Your task to perform on an android device: Show me popular games on the Play Store Image 0: 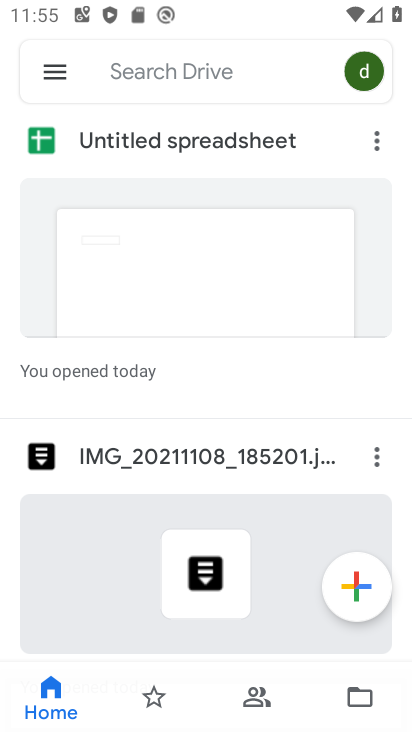
Step 0: press home button
Your task to perform on an android device: Show me popular games on the Play Store Image 1: 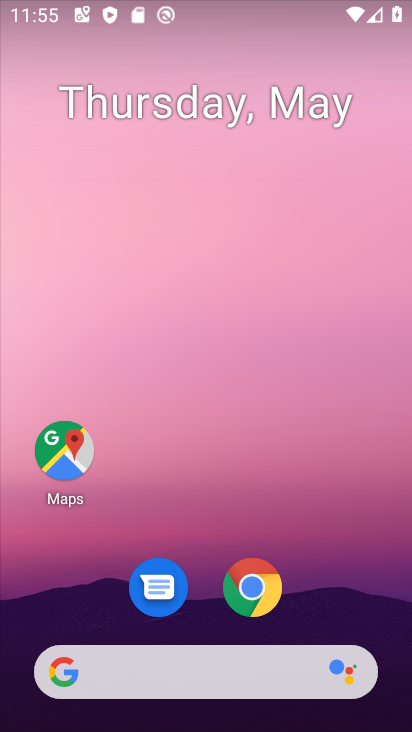
Step 1: drag from (145, 591) to (175, 25)
Your task to perform on an android device: Show me popular games on the Play Store Image 2: 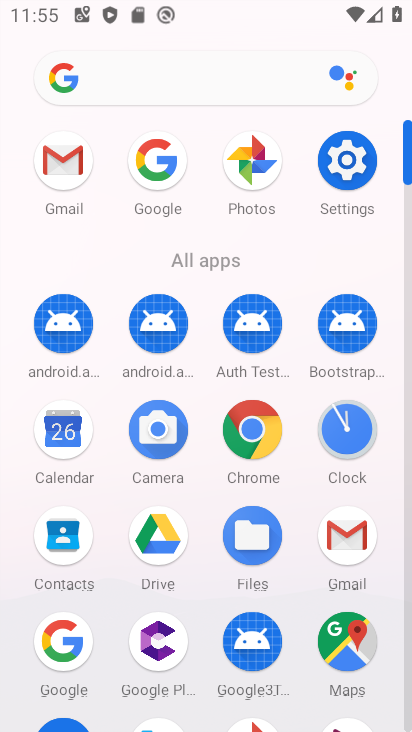
Step 2: drag from (112, 710) to (118, 289)
Your task to perform on an android device: Show me popular games on the Play Store Image 3: 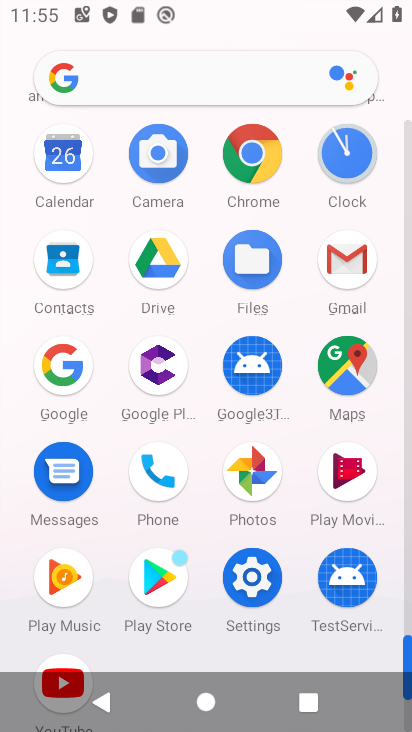
Step 3: click (159, 595)
Your task to perform on an android device: Show me popular games on the Play Store Image 4: 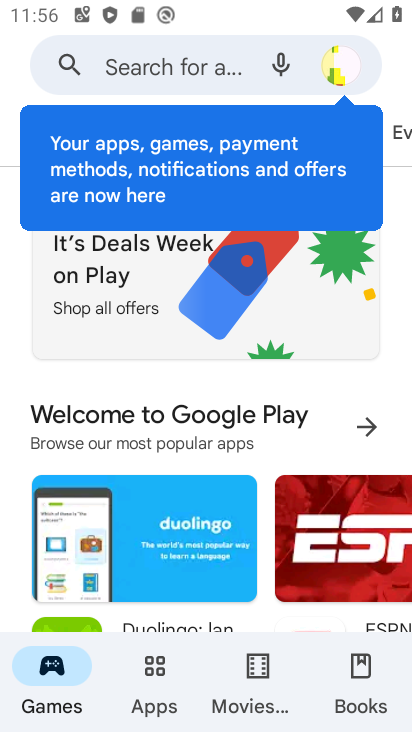
Step 4: click (397, 72)
Your task to perform on an android device: Show me popular games on the Play Store Image 5: 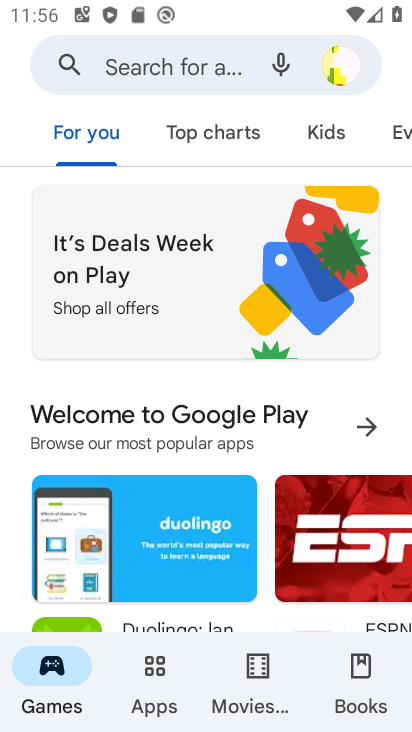
Step 5: click (210, 132)
Your task to perform on an android device: Show me popular games on the Play Store Image 6: 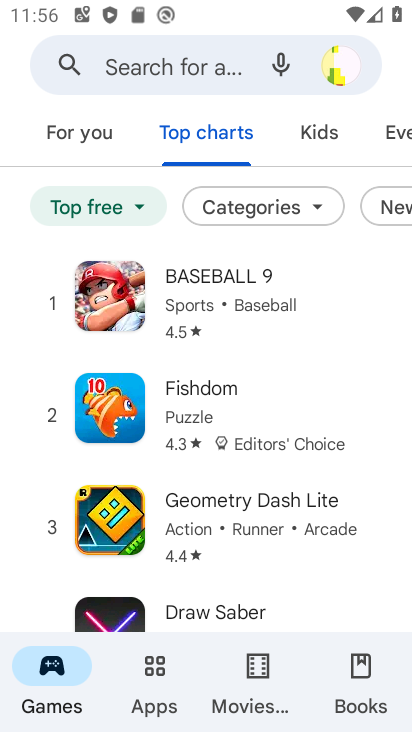
Step 6: task complete